Your task to perform on an android device: Check the news Image 0: 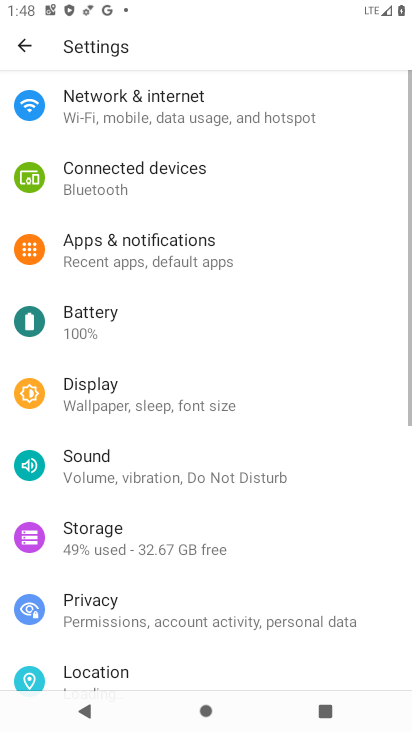
Step 0: press home button
Your task to perform on an android device: Check the news Image 1: 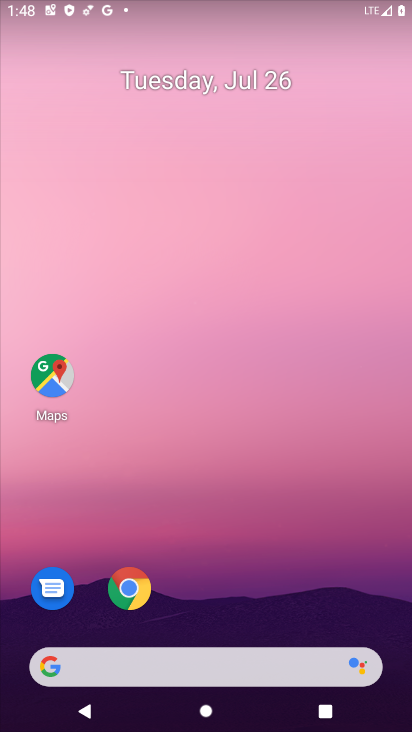
Step 1: click (219, 663)
Your task to perform on an android device: Check the news Image 2: 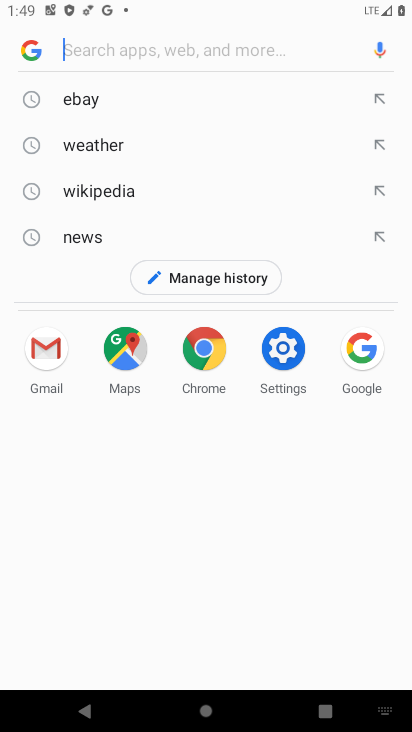
Step 2: click (104, 234)
Your task to perform on an android device: Check the news Image 3: 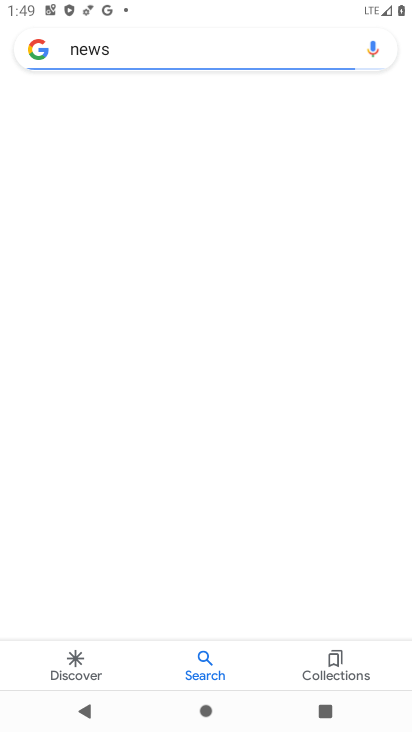
Step 3: task complete